Your task to perform on an android device: change the upload size in google photos Image 0: 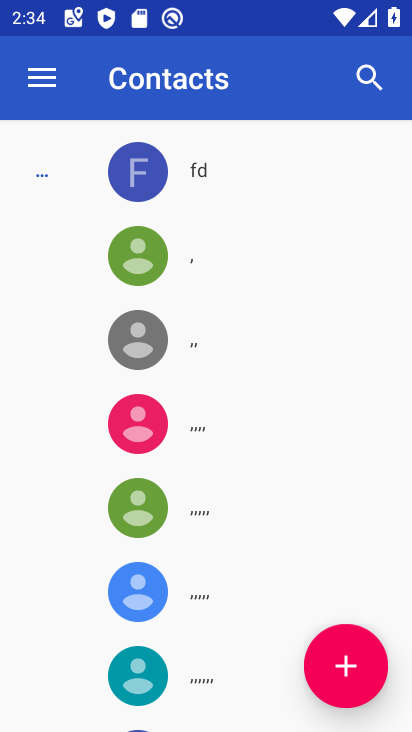
Step 0: press home button
Your task to perform on an android device: change the upload size in google photos Image 1: 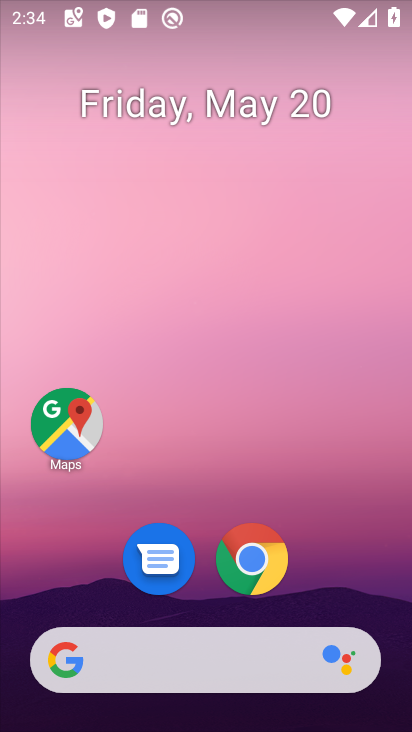
Step 1: drag from (207, 446) to (250, 23)
Your task to perform on an android device: change the upload size in google photos Image 2: 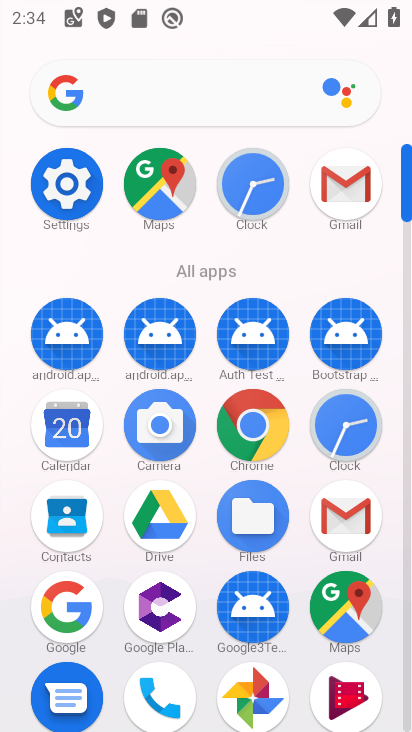
Step 2: click (258, 676)
Your task to perform on an android device: change the upload size in google photos Image 3: 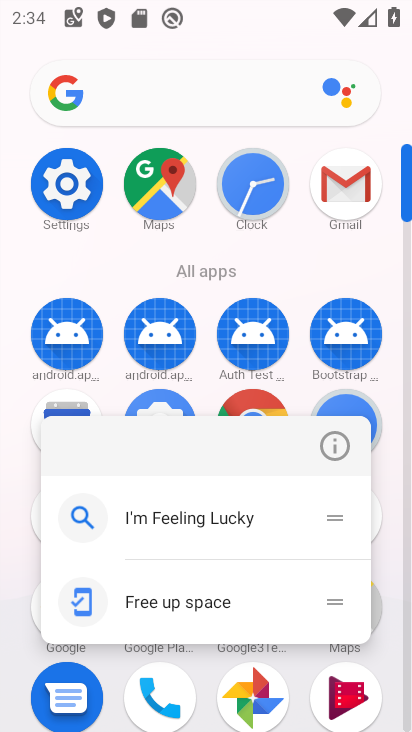
Step 3: click (258, 676)
Your task to perform on an android device: change the upload size in google photos Image 4: 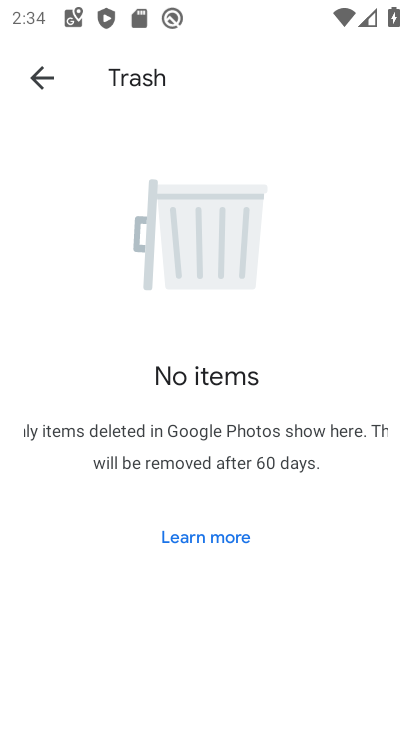
Step 4: click (37, 64)
Your task to perform on an android device: change the upload size in google photos Image 5: 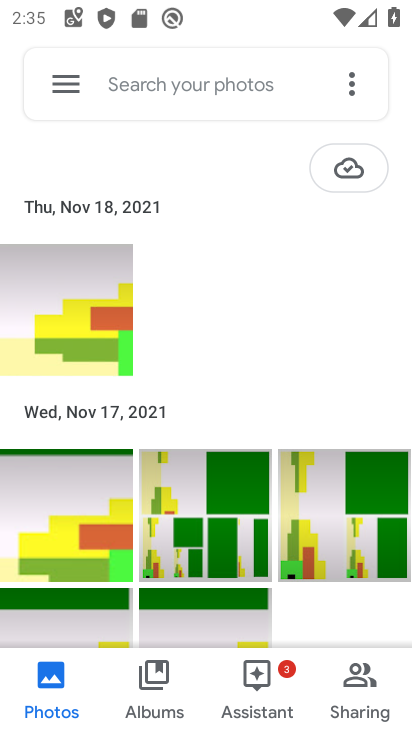
Step 5: click (53, 84)
Your task to perform on an android device: change the upload size in google photos Image 6: 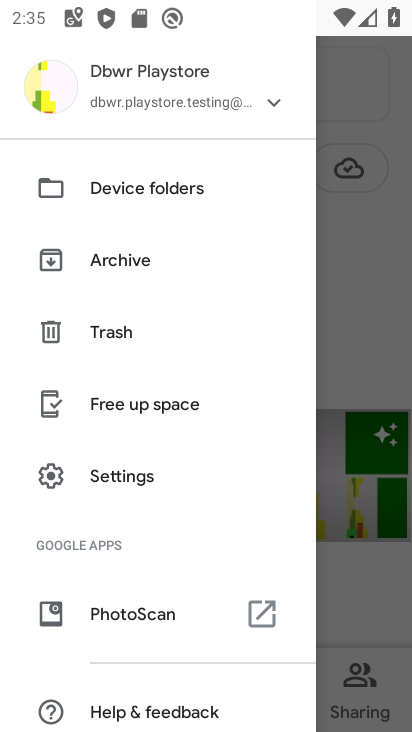
Step 6: click (129, 468)
Your task to perform on an android device: change the upload size in google photos Image 7: 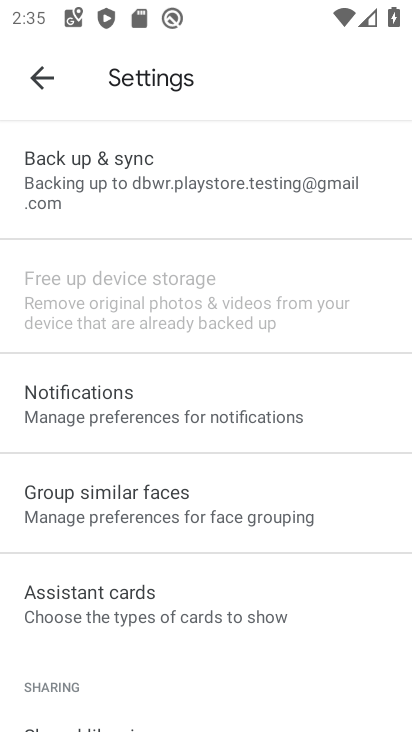
Step 7: click (197, 172)
Your task to perform on an android device: change the upload size in google photos Image 8: 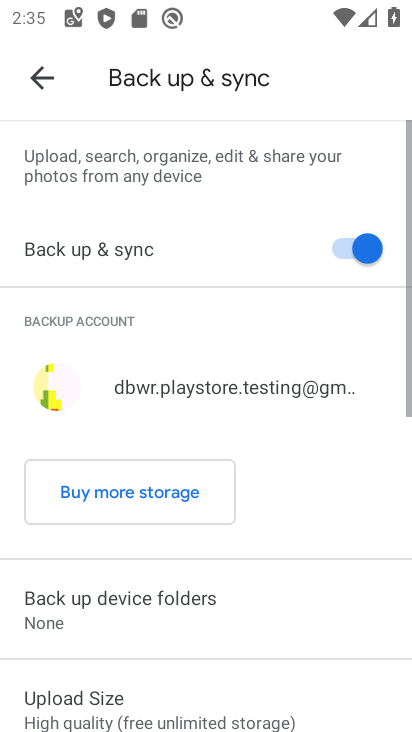
Step 8: drag from (295, 464) to (257, 193)
Your task to perform on an android device: change the upload size in google photos Image 9: 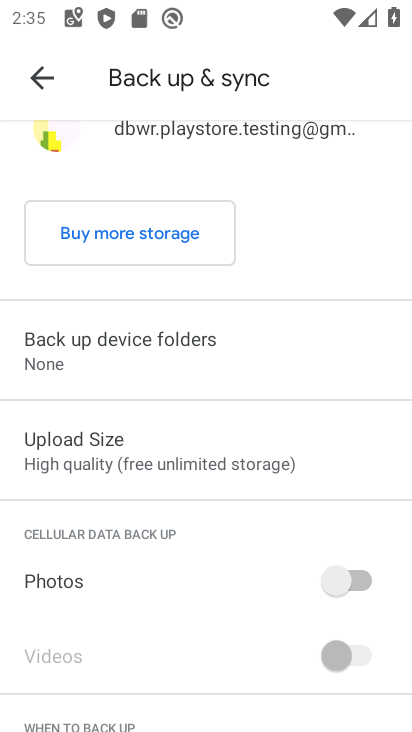
Step 9: click (216, 453)
Your task to perform on an android device: change the upload size in google photos Image 10: 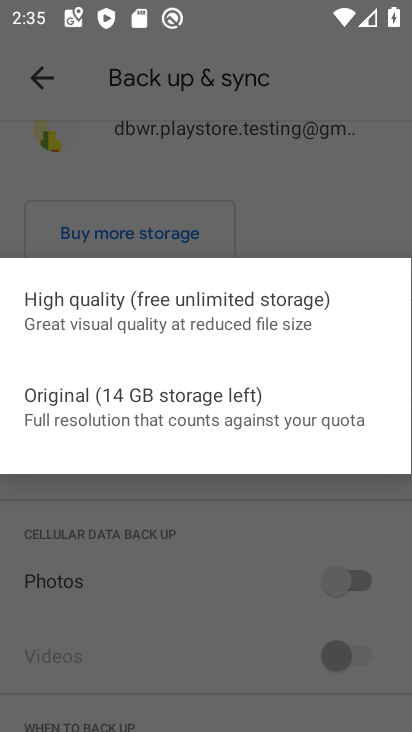
Step 10: click (221, 401)
Your task to perform on an android device: change the upload size in google photos Image 11: 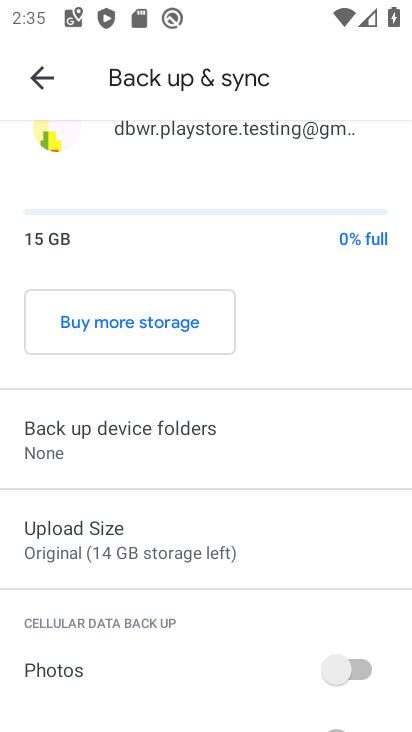
Step 11: task complete